Your task to perform on an android device: Open battery settings Image 0: 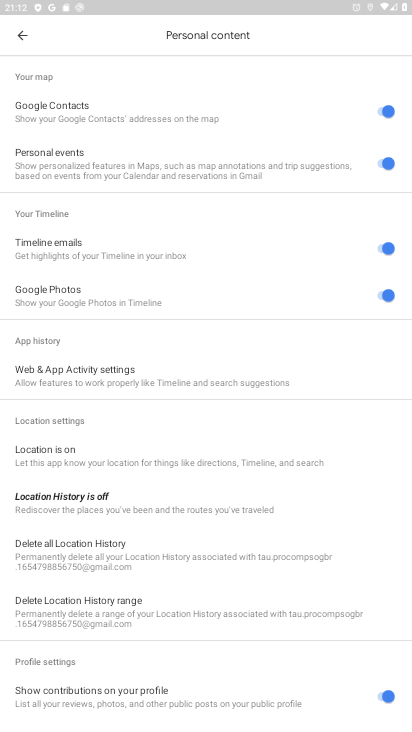
Step 0: press home button
Your task to perform on an android device: Open battery settings Image 1: 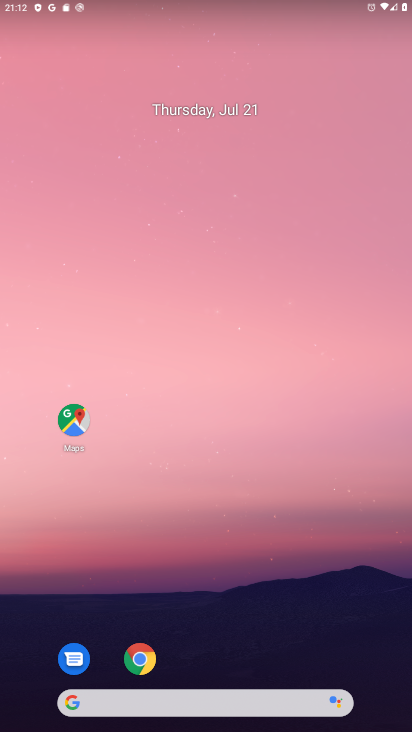
Step 1: drag from (239, 725) to (337, 7)
Your task to perform on an android device: Open battery settings Image 2: 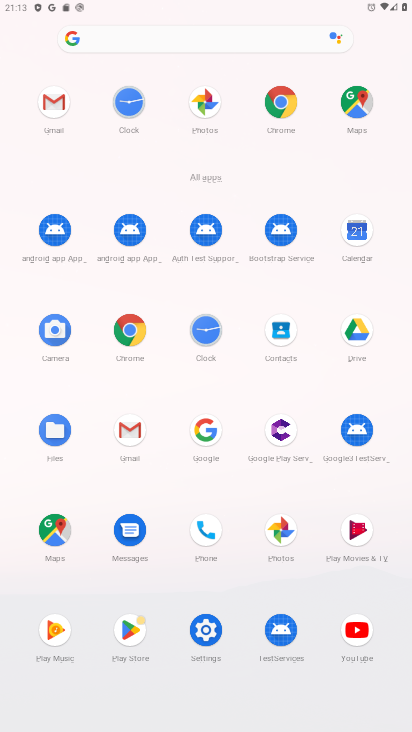
Step 2: click (202, 620)
Your task to perform on an android device: Open battery settings Image 3: 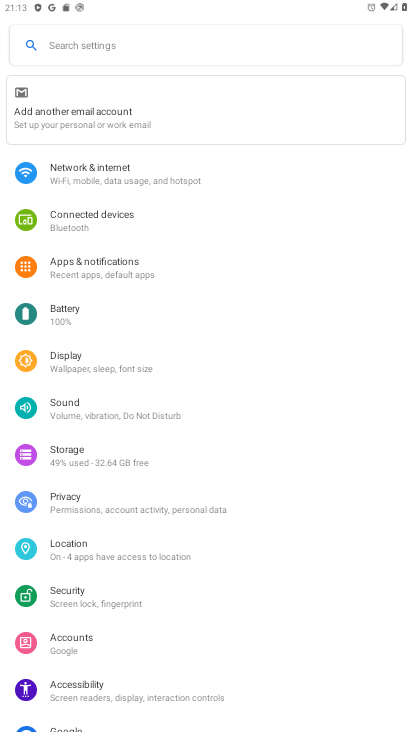
Step 3: click (69, 312)
Your task to perform on an android device: Open battery settings Image 4: 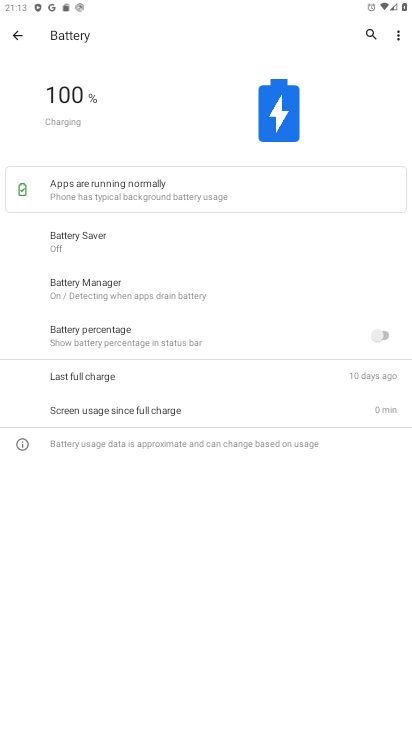
Step 4: task complete